Your task to perform on an android device: Find coffee shops on Maps Image 0: 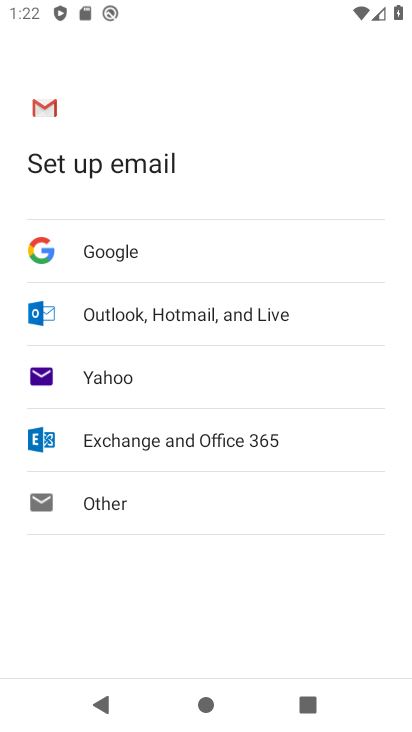
Step 0: press home button
Your task to perform on an android device: Find coffee shops on Maps Image 1: 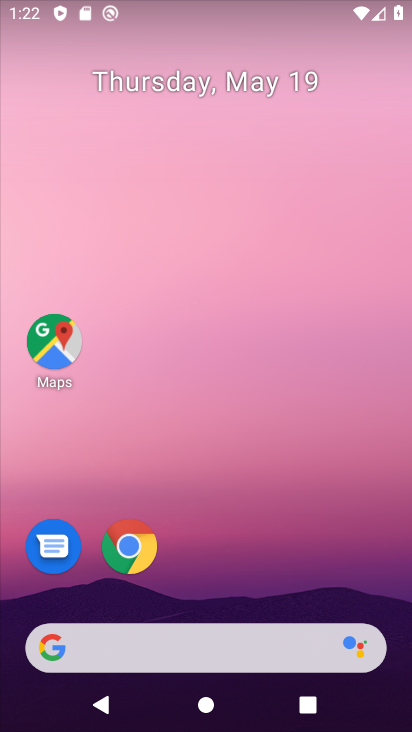
Step 1: click (47, 342)
Your task to perform on an android device: Find coffee shops on Maps Image 2: 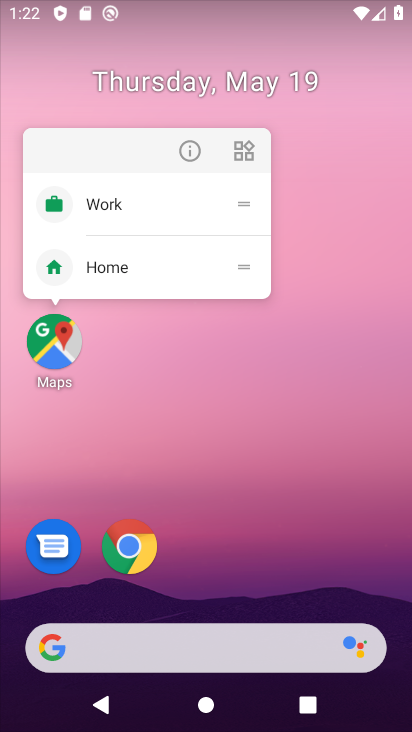
Step 2: click (179, 156)
Your task to perform on an android device: Find coffee shops on Maps Image 3: 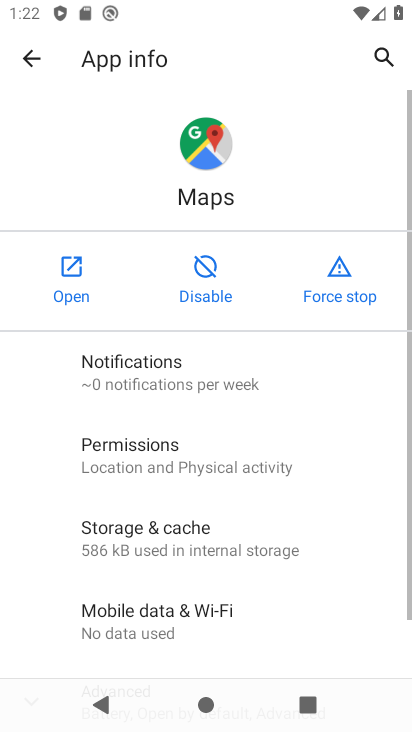
Step 3: click (75, 270)
Your task to perform on an android device: Find coffee shops on Maps Image 4: 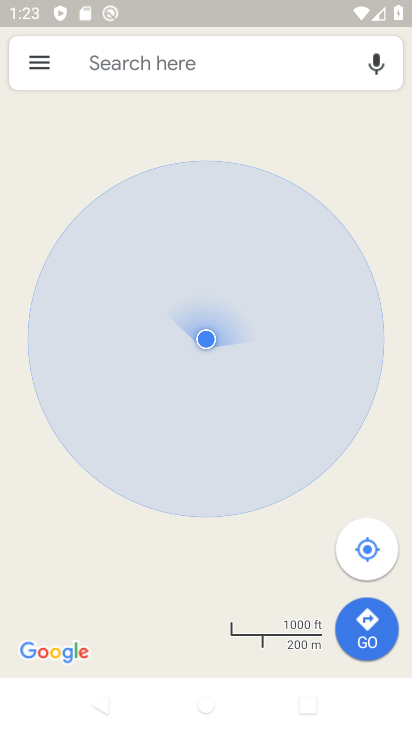
Step 4: click (95, 71)
Your task to perform on an android device: Find coffee shops on Maps Image 5: 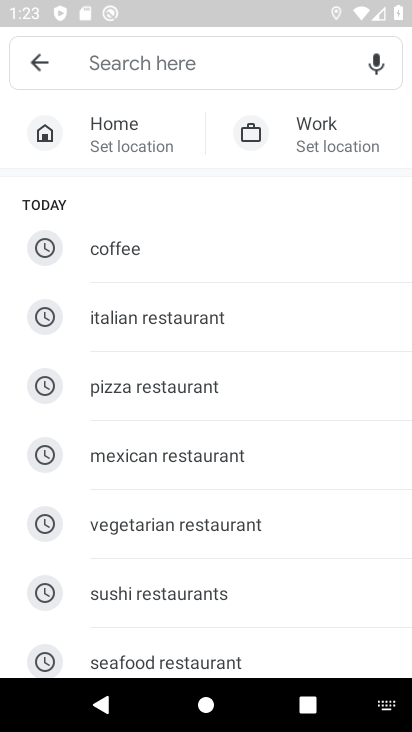
Step 5: type "coffee shops"
Your task to perform on an android device: Find coffee shops on Maps Image 6: 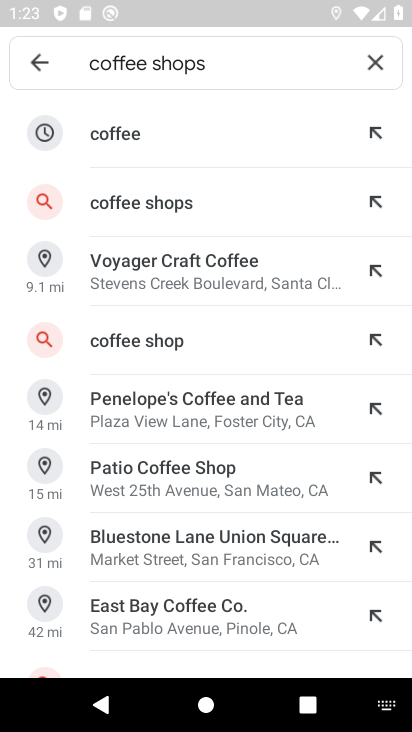
Step 6: click (83, 201)
Your task to perform on an android device: Find coffee shops on Maps Image 7: 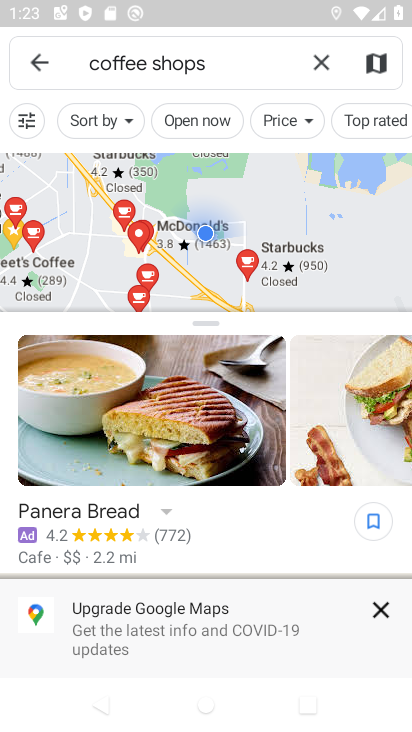
Step 7: task complete